Your task to perform on an android device: Open location settings Image 0: 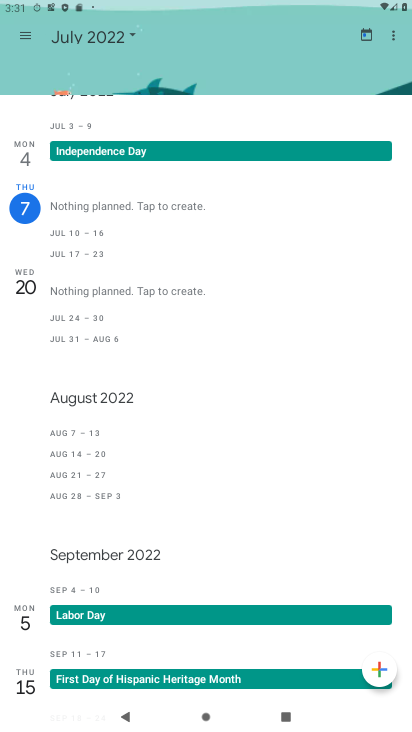
Step 0: press home button
Your task to perform on an android device: Open location settings Image 1: 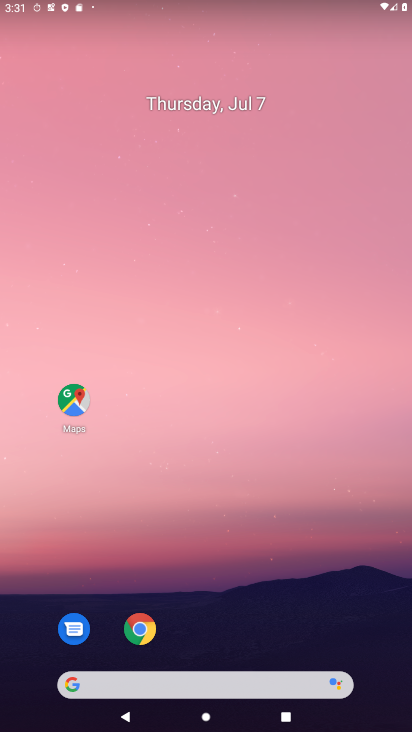
Step 1: drag from (211, 409) to (150, 10)
Your task to perform on an android device: Open location settings Image 2: 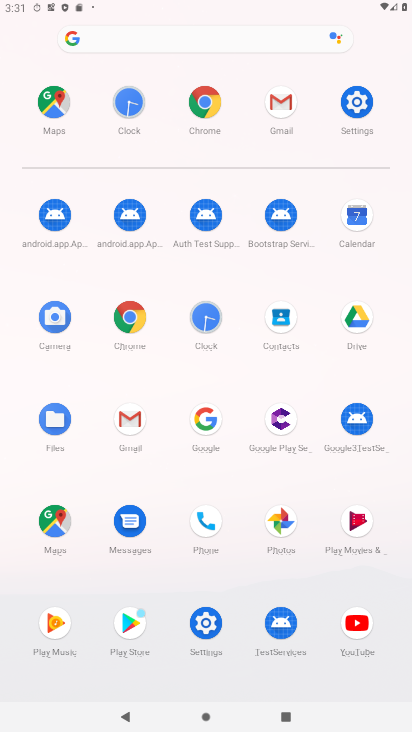
Step 2: click (361, 127)
Your task to perform on an android device: Open location settings Image 3: 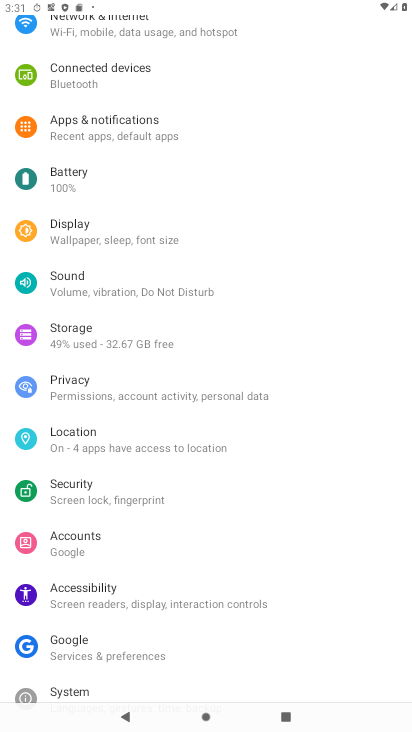
Step 3: click (83, 439)
Your task to perform on an android device: Open location settings Image 4: 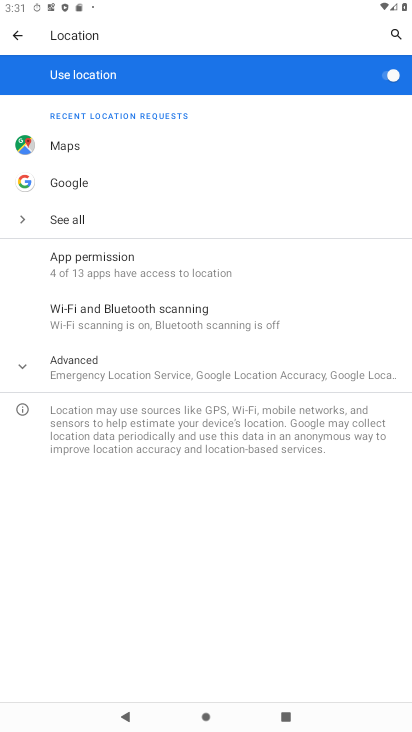
Step 4: task complete